Your task to perform on an android device: Search for Italian restaurants on Maps Image 0: 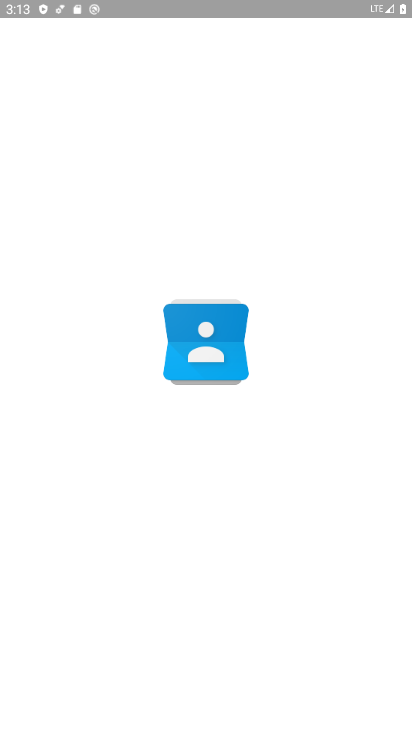
Step 0: drag from (239, 637) to (332, 313)
Your task to perform on an android device: Search for Italian restaurants on Maps Image 1: 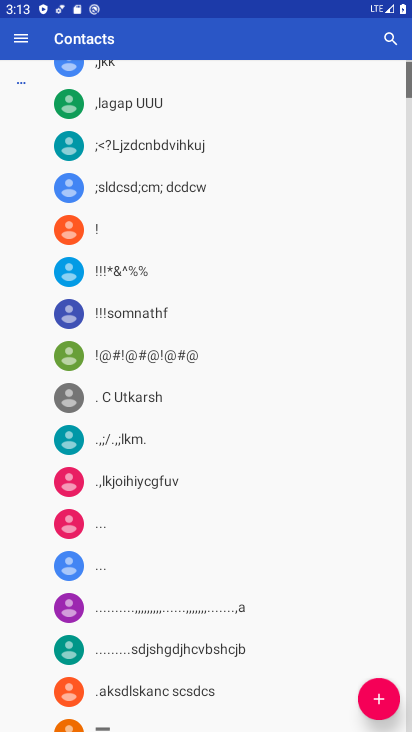
Step 1: press home button
Your task to perform on an android device: Search for Italian restaurants on Maps Image 2: 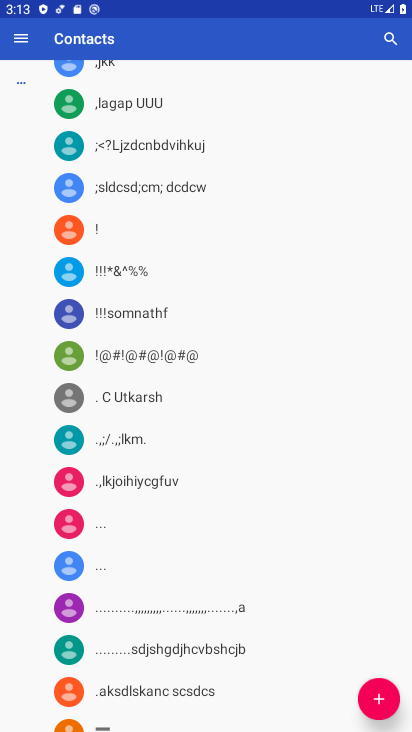
Step 2: drag from (332, 313) to (391, 615)
Your task to perform on an android device: Search for Italian restaurants on Maps Image 3: 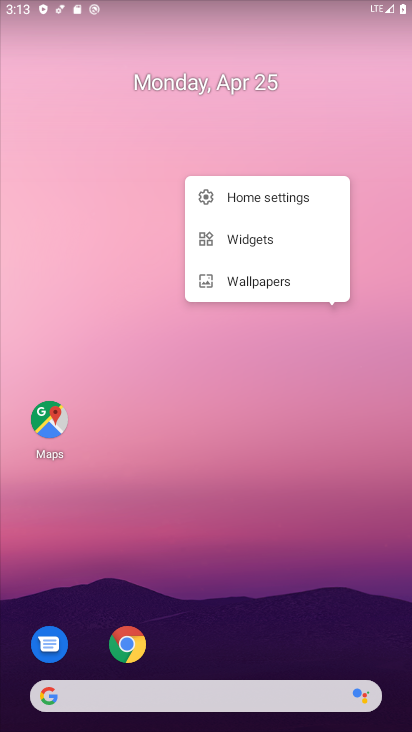
Step 3: click (37, 416)
Your task to perform on an android device: Search for Italian restaurants on Maps Image 4: 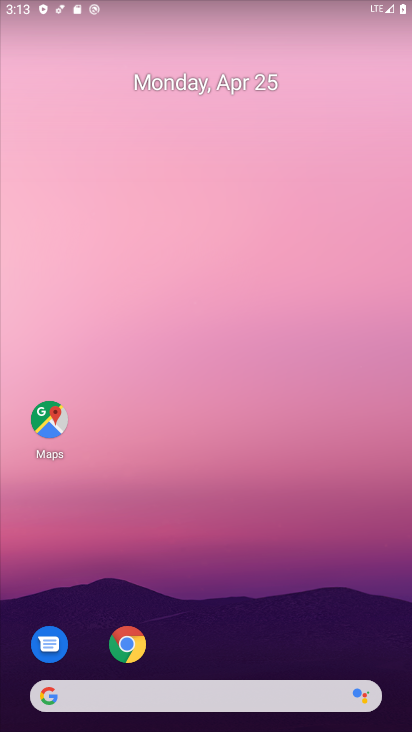
Step 4: click (52, 428)
Your task to perform on an android device: Search for Italian restaurants on Maps Image 5: 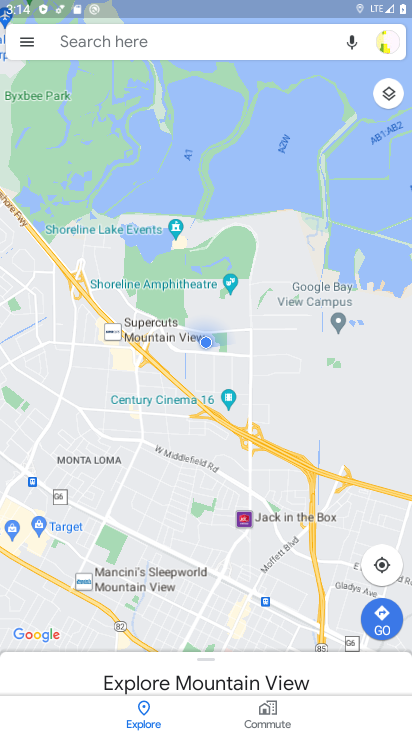
Step 5: drag from (181, 689) to (399, 253)
Your task to perform on an android device: Search for Italian restaurants on Maps Image 6: 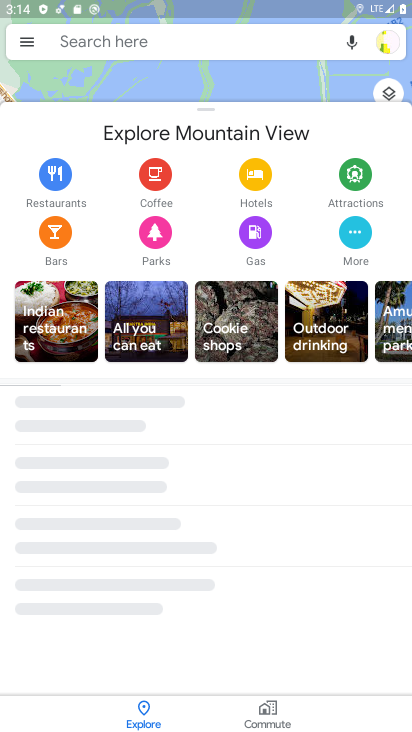
Step 6: click (137, 30)
Your task to perform on an android device: Search for Italian restaurants on Maps Image 7: 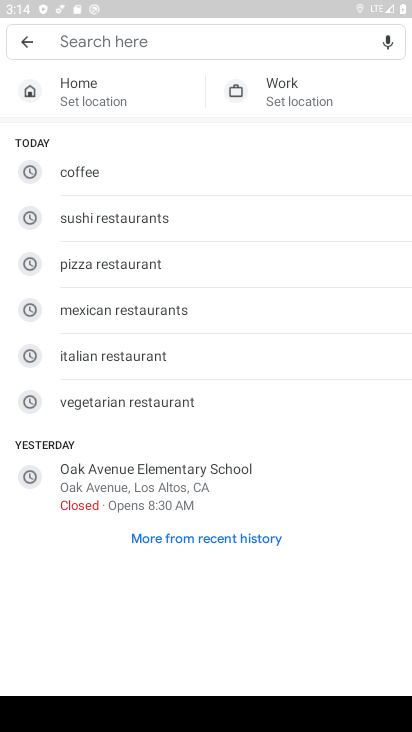
Step 7: click (138, 35)
Your task to perform on an android device: Search for Italian restaurants on Maps Image 8: 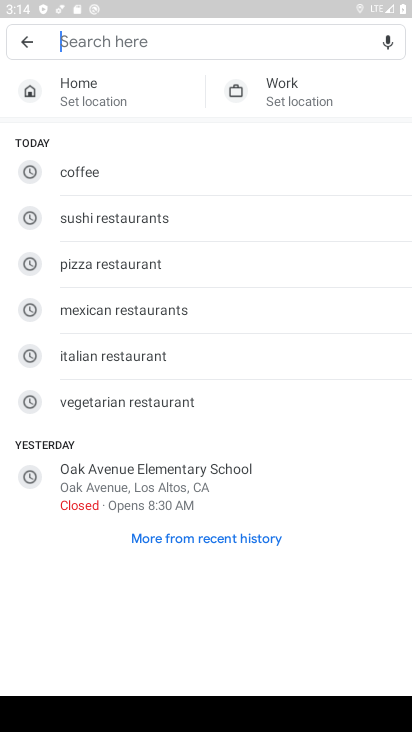
Step 8: click (136, 372)
Your task to perform on an android device: Search for Italian restaurants on Maps Image 9: 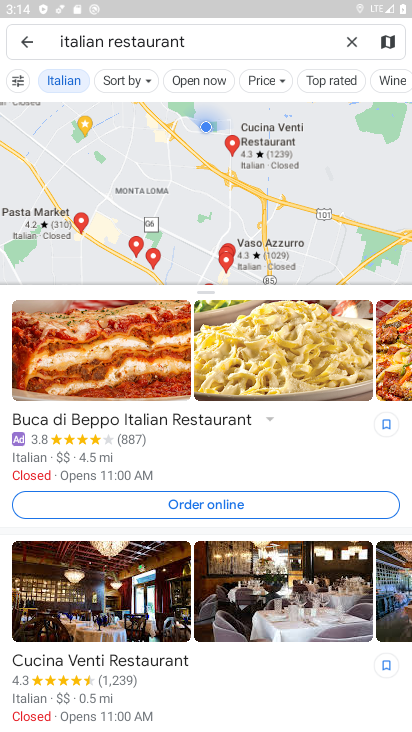
Step 9: task complete